Your task to perform on an android device: toggle notifications settings in the gmail app Image 0: 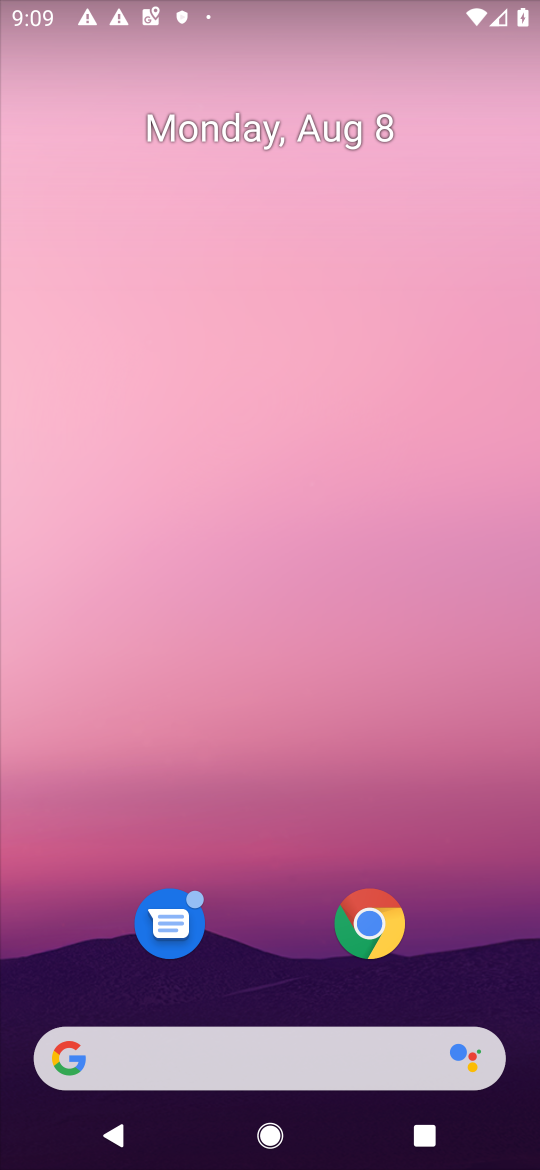
Step 0: drag from (68, 1117) to (203, 3)
Your task to perform on an android device: toggle notifications settings in the gmail app Image 1: 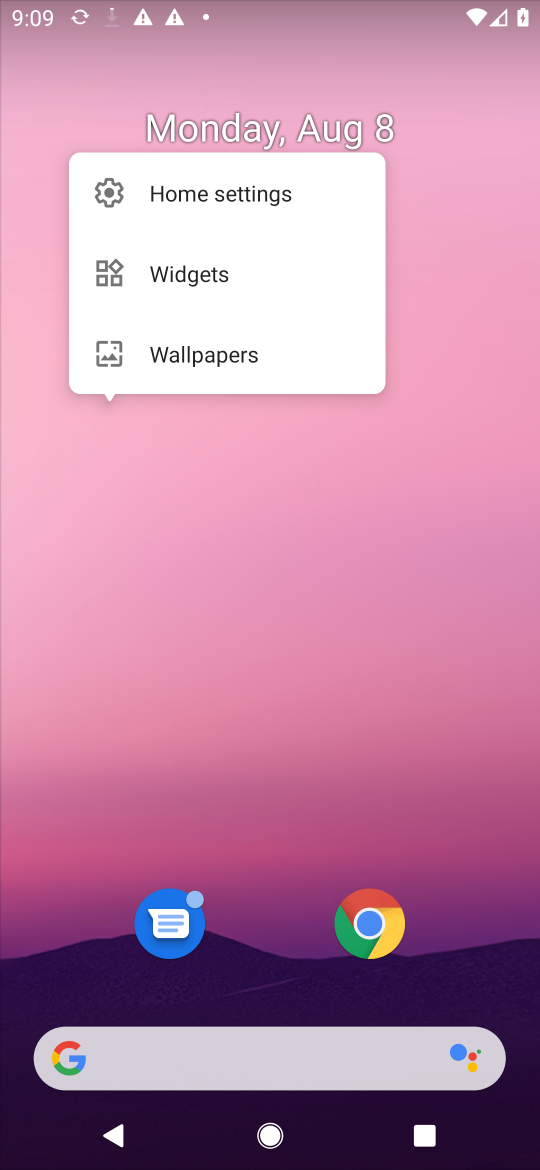
Step 1: drag from (49, 1158) to (389, 407)
Your task to perform on an android device: toggle notifications settings in the gmail app Image 2: 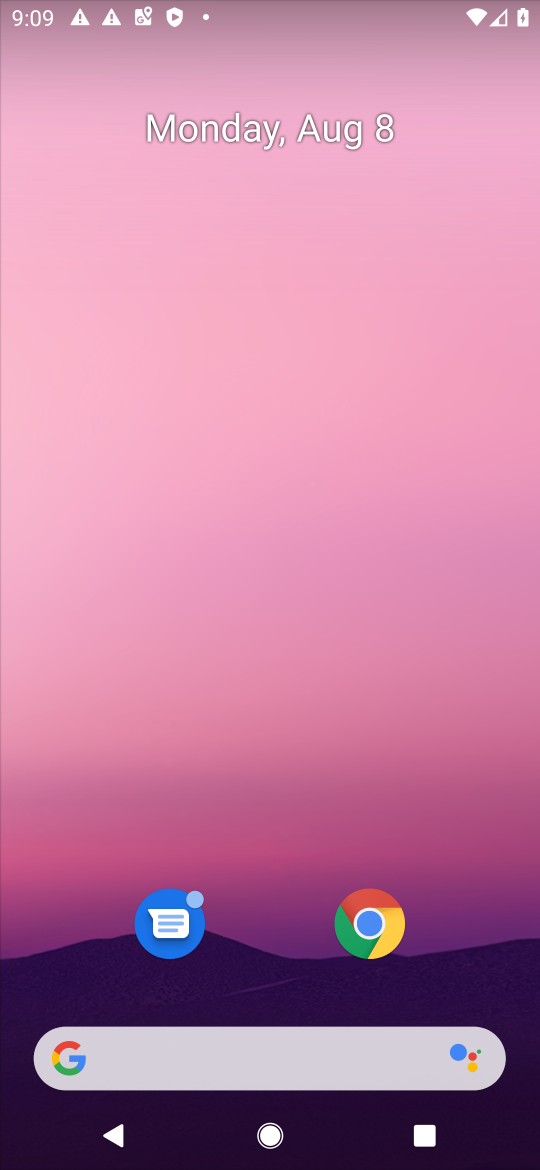
Step 2: drag from (43, 1107) to (412, 425)
Your task to perform on an android device: toggle notifications settings in the gmail app Image 3: 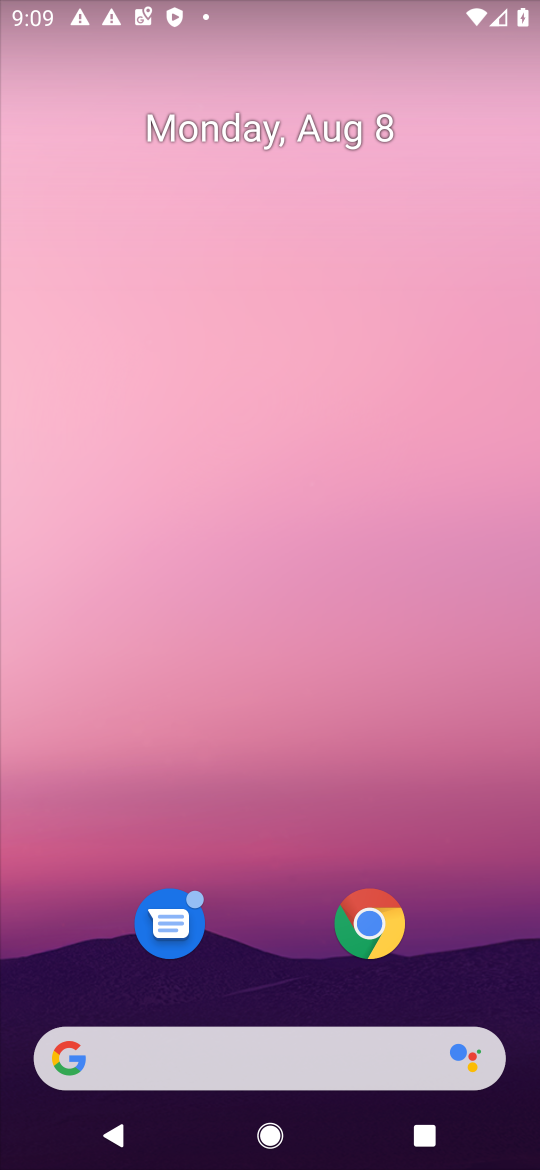
Step 3: drag from (53, 1105) to (233, 397)
Your task to perform on an android device: toggle notifications settings in the gmail app Image 4: 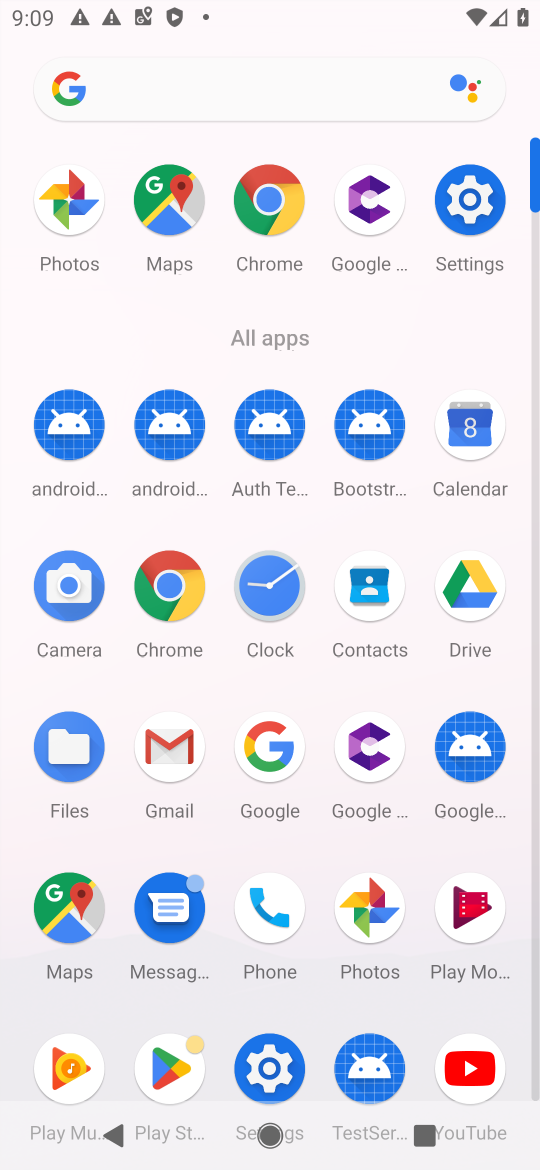
Step 4: click (180, 749)
Your task to perform on an android device: toggle notifications settings in the gmail app Image 5: 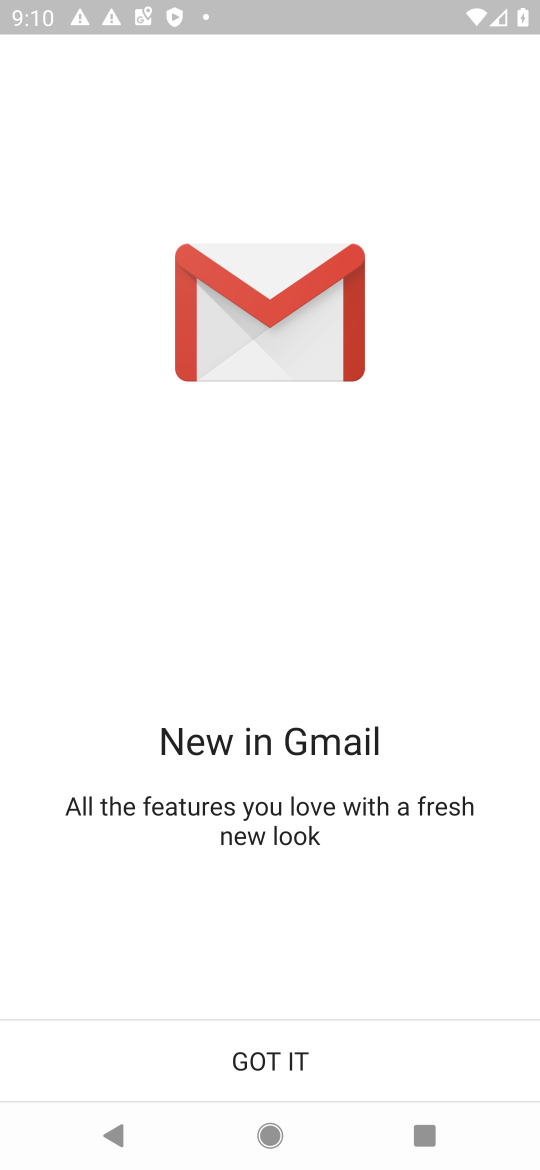
Step 5: click (247, 1074)
Your task to perform on an android device: toggle notifications settings in the gmail app Image 6: 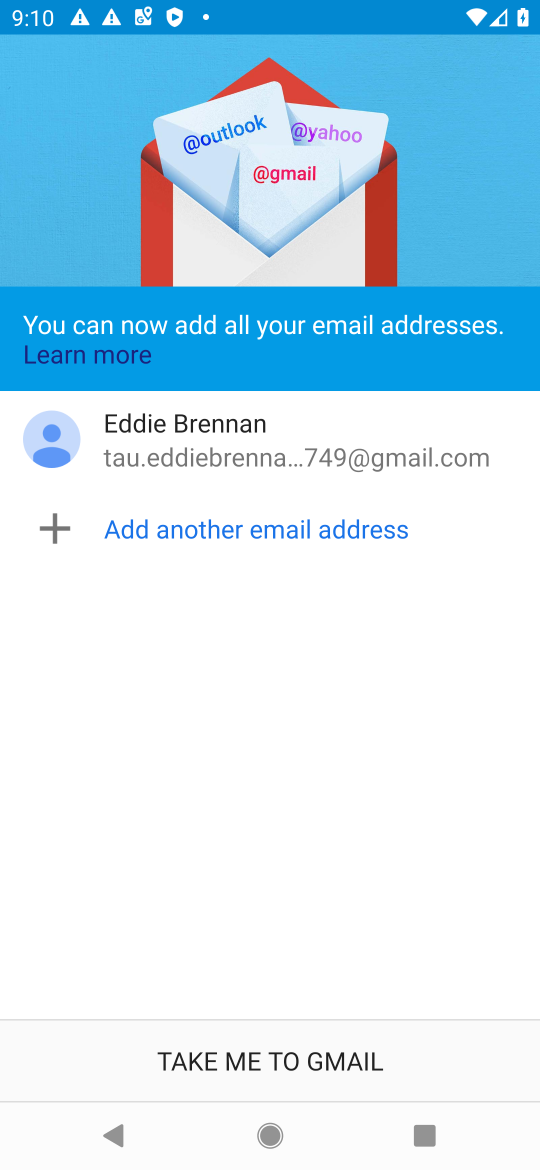
Step 6: click (255, 1063)
Your task to perform on an android device: toggle notifications settings in the gmail app Image 7: 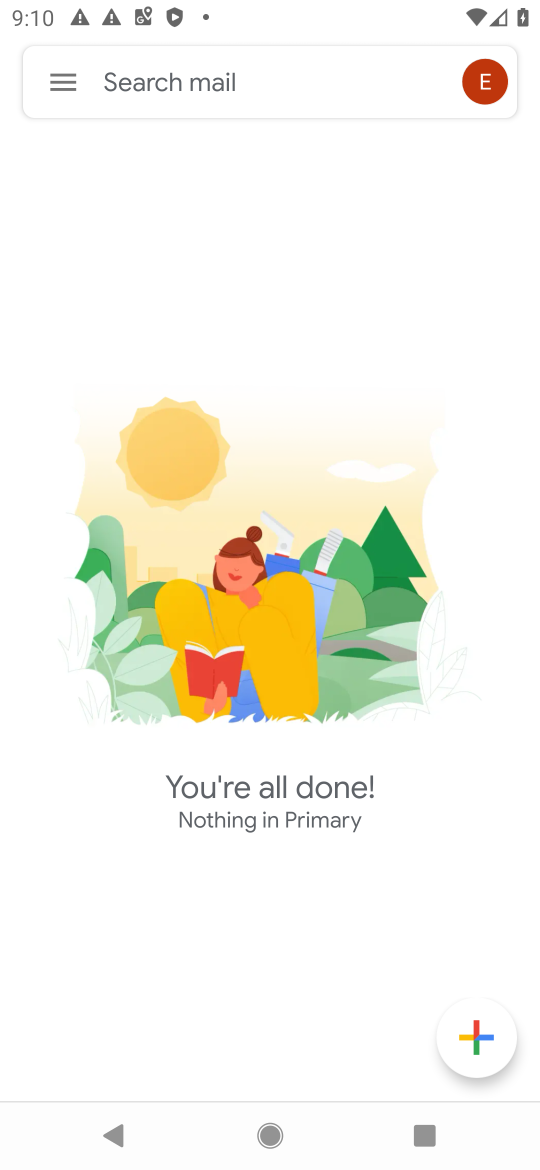
Step 7: click (65, 85)
Your task to perform on an android device: toggle notifications settings in the gmail app Image 8: 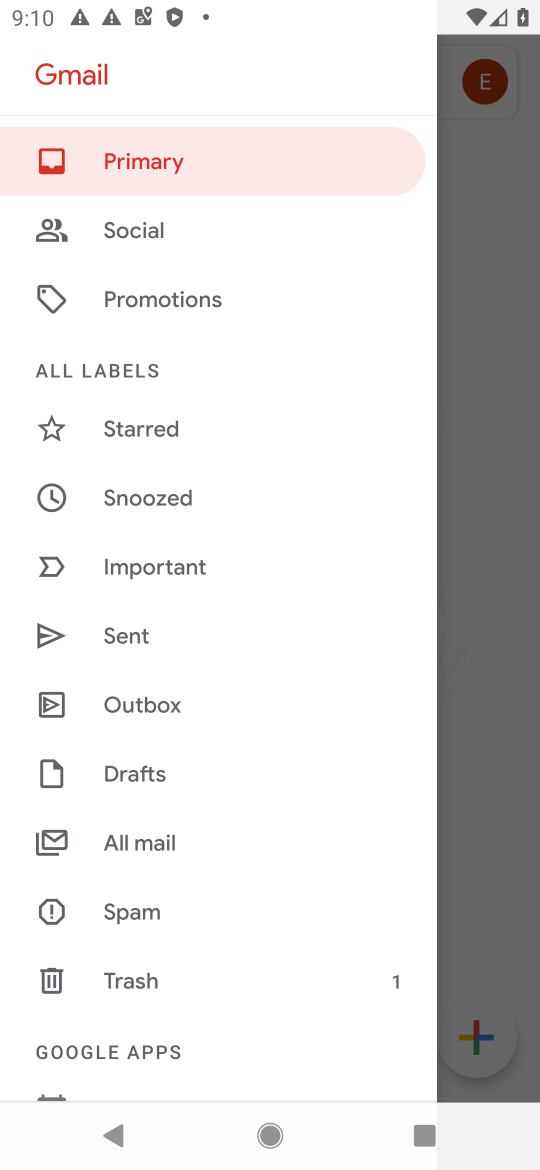
Step 8: drag from (313, 1079) to (315, 511)
Your task to perform on an android device: toggle notifications settings in the gmail app Image 9: 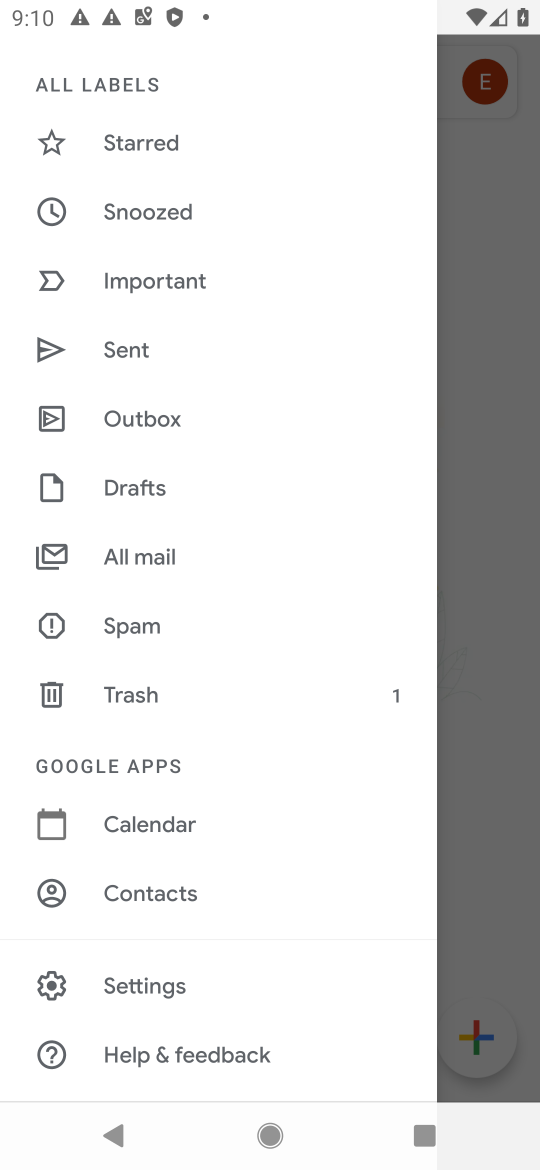
Step 9: click (124, 978)
Your task to perform on an android device: toggle notifications settings in the gmail app Image 10: 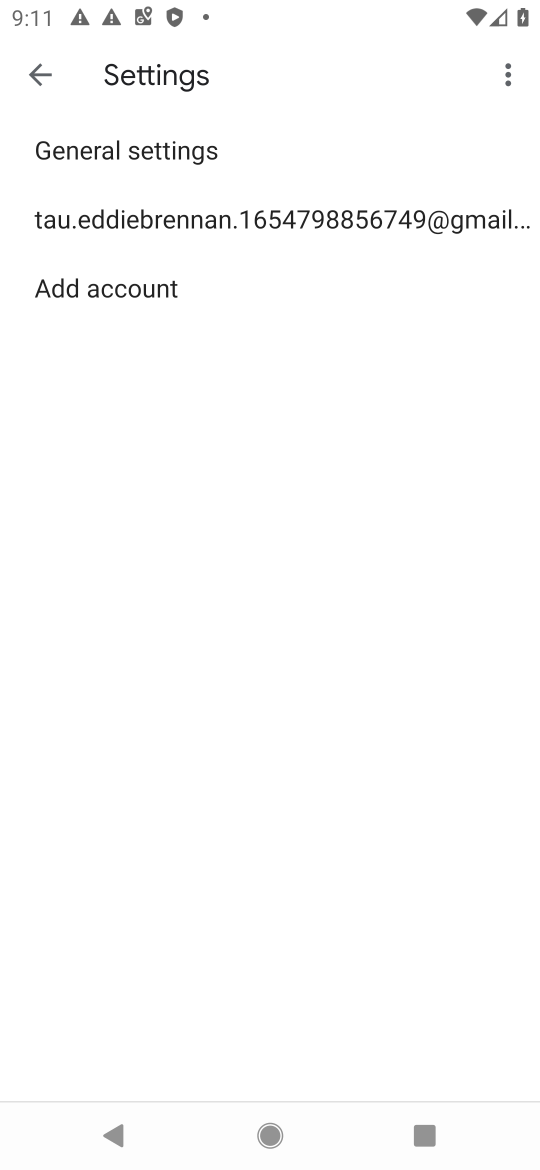
Step 10: click (181, 210)
Your task to perform on an android device: toggle notifications settings in the gmail app Image 11: 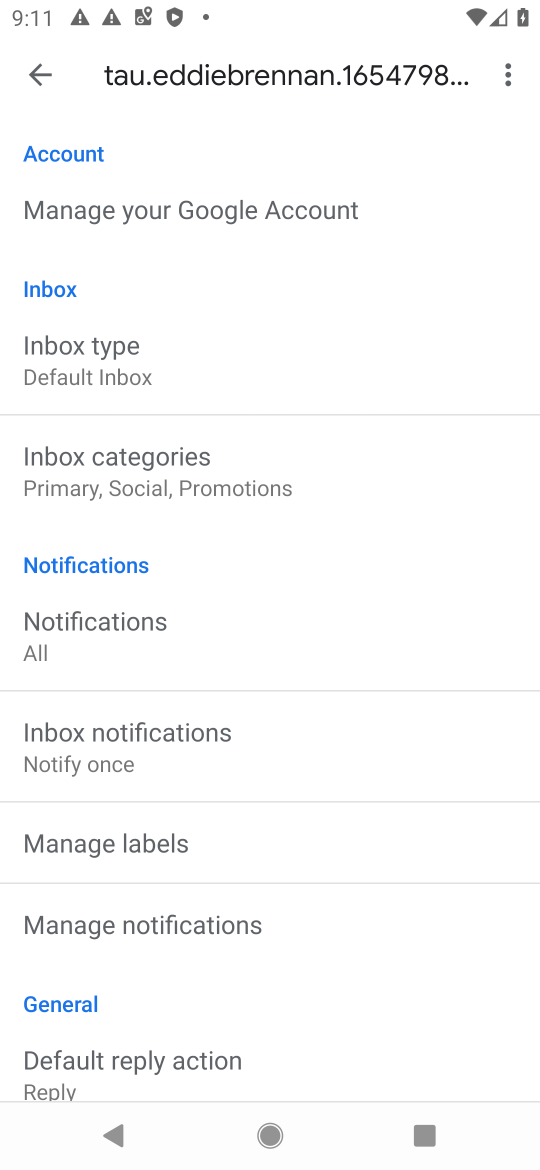
Step 11: click (84, 650)
Your task to perform on an android device: toggle notifications settings in the gmail app Image 12: 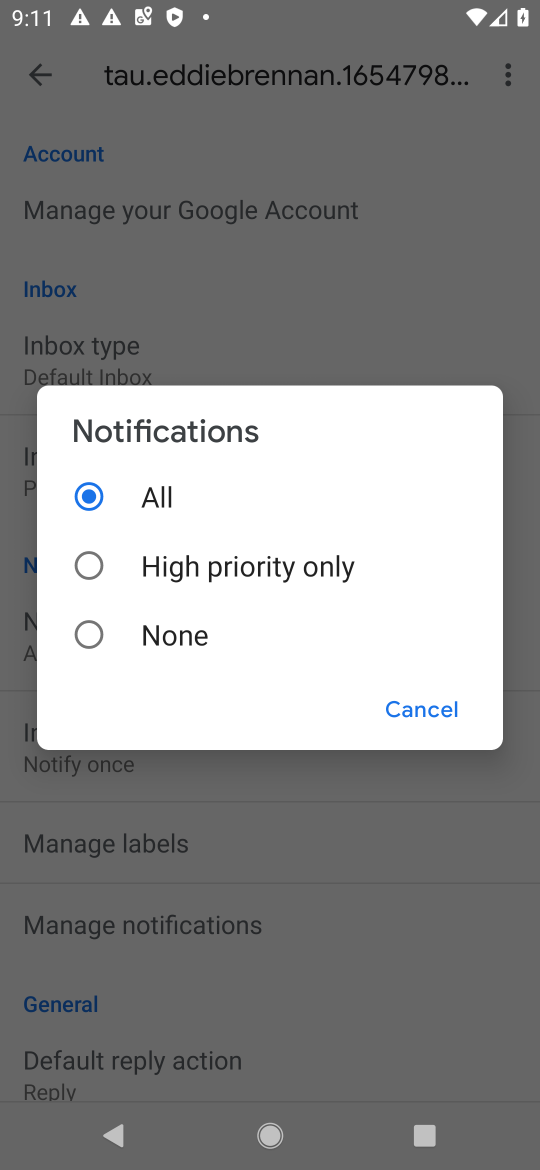
Step 12: click (389, 705)
Your task to perform on an android device: toggle notifications settings in the gmail app Image 13: 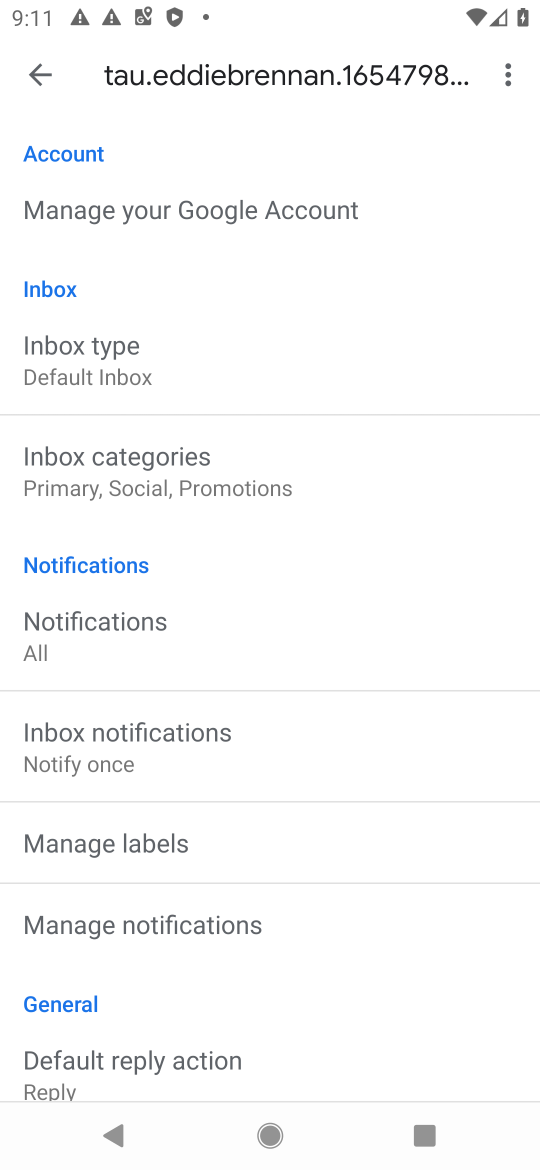
Step 13: click (173, 914)
Your task to perform on an android device: toggle notifications settings in the gmail app Image 14: 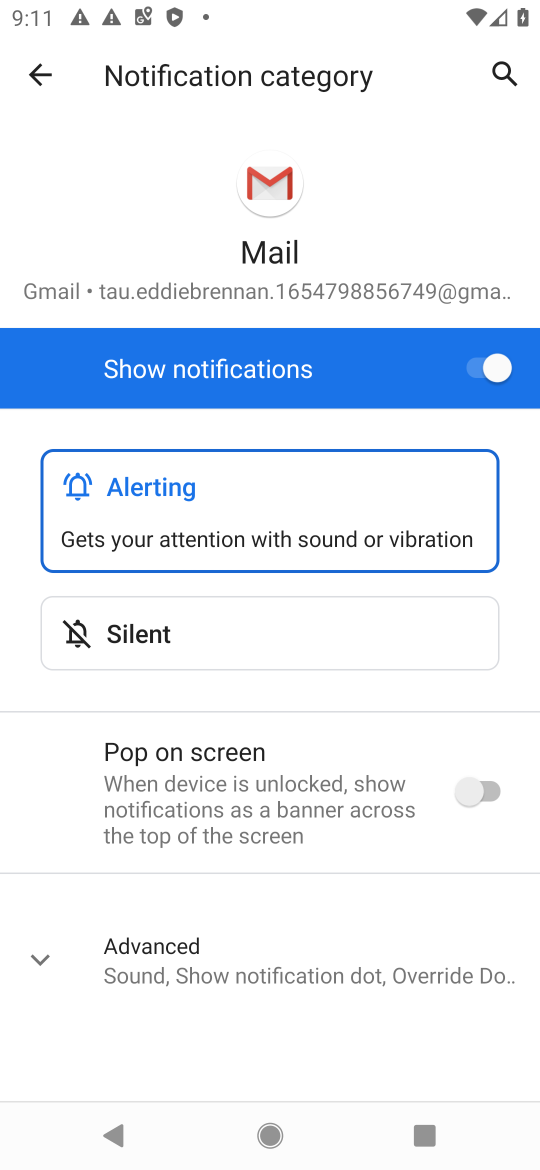
Step 14: click (485, 364)
Your task to perform on an android device: toggle notifications settings in the gmail app Image 15: 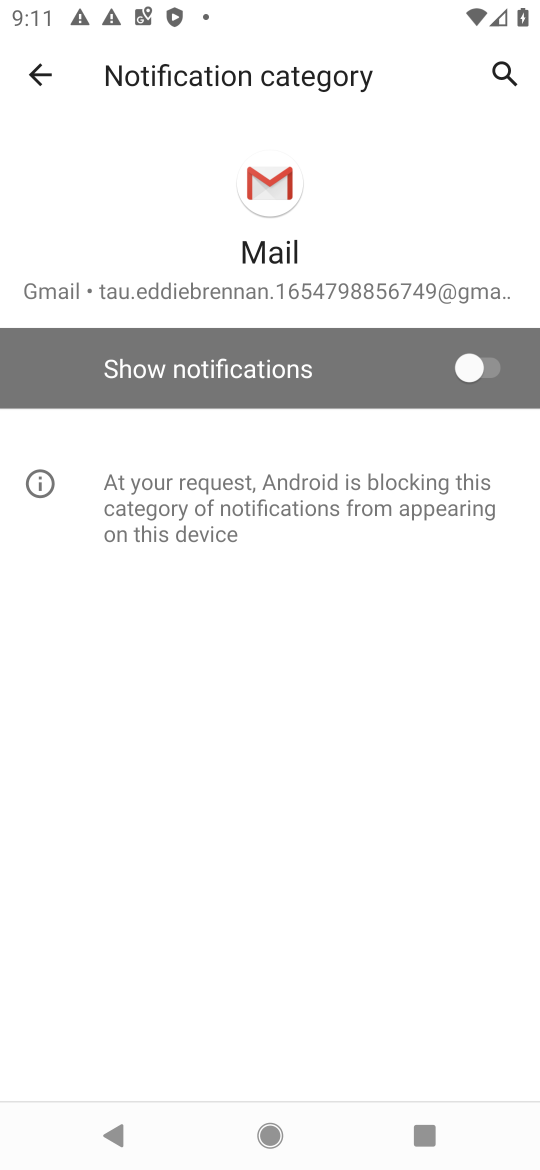
Step 15: task complete